Your task to perform on an android device: Go to Amazon Image 0: 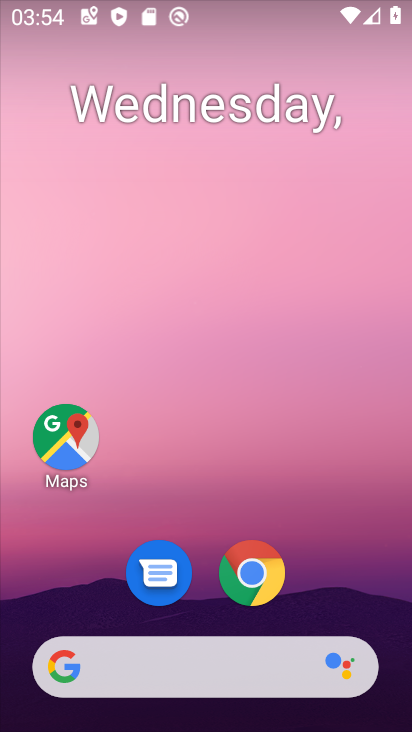
Step 0: click (254, 574)
Your task to perform on an android device: Go to Amazon Image 1: 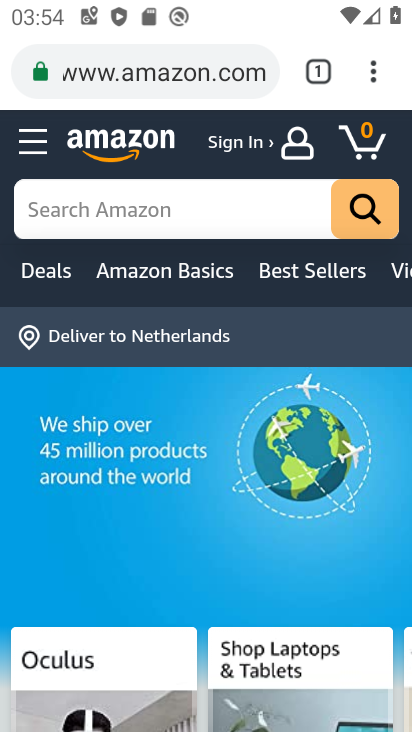
Step 1: task complete